Your task to perform on an android device: Open sound settings Image 0: 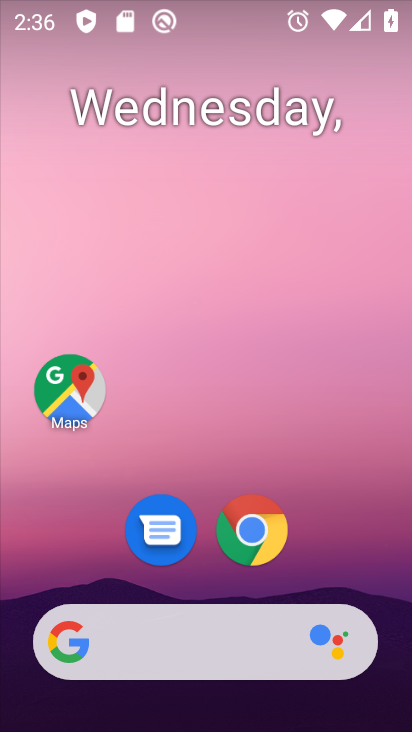
Step 0: drag from (240, 640) to (250, 0)
Your task to perform on an android device: Open sound settings Image 1: 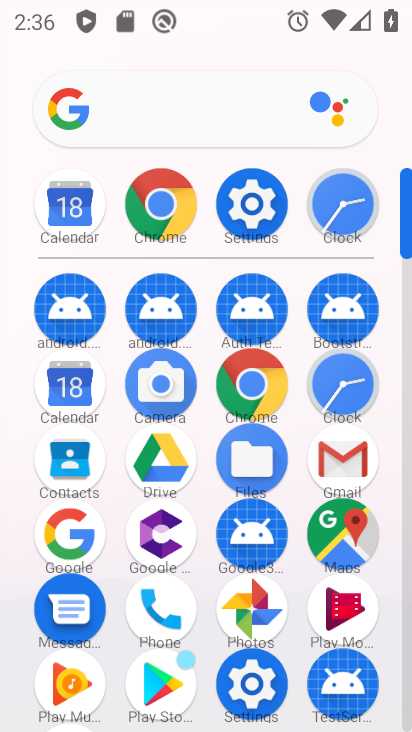
Step 1: click (278, 670)
Your task to perform on an android device: Open sound settings Image 2: 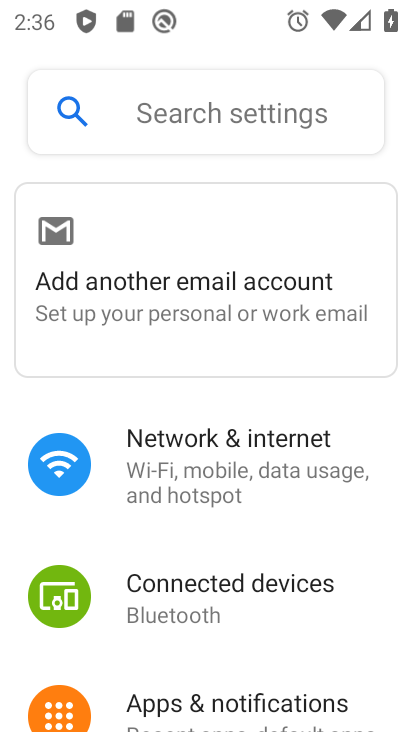
Step 2: drag from (278, 670) to (252, 255)
Your task to perform on an android device: Open sound settings Image 3: 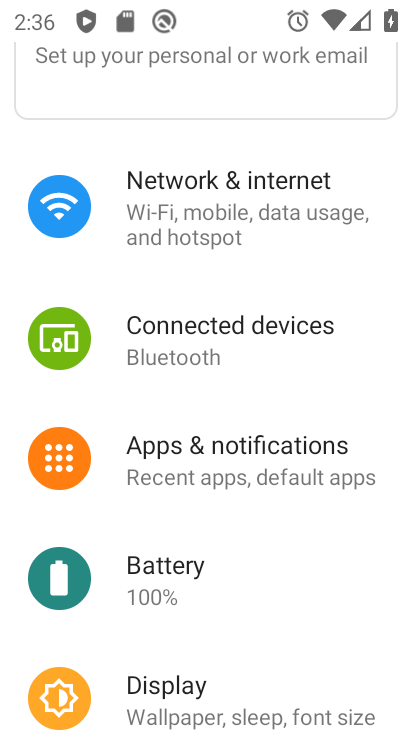
Step 3: drag from (222, 648) to (235, 57)
Your task to perform on an android device: Open sound settings Image 4: 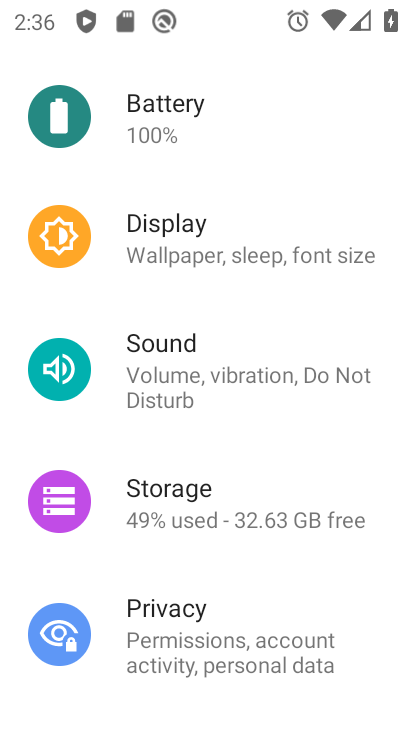
Step 4: click (192, 357)
Your task to perform on an android device: Open sound settings Image 5: 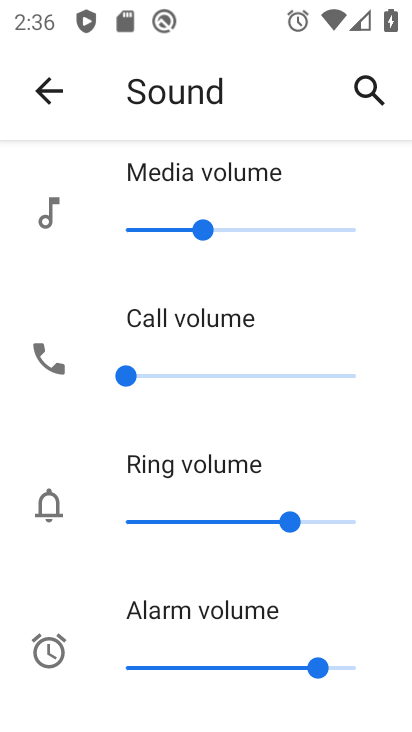
Step 5: task complete